Your task to perform on an android device: open device folders in google photos Image 0: 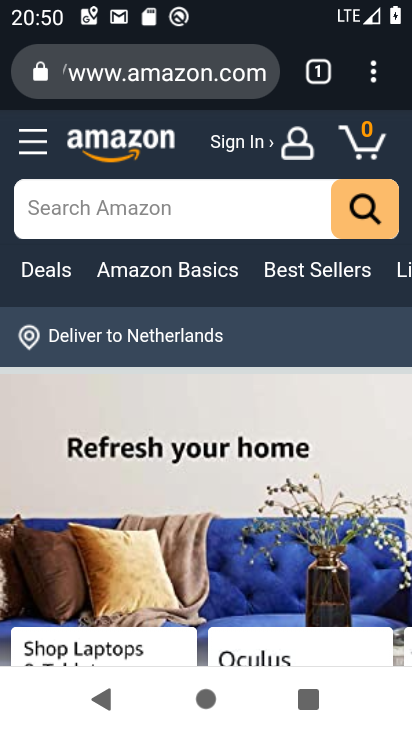
Step 0: press home button
Your task to perform on an android device: open device folders in google photos Image 1: 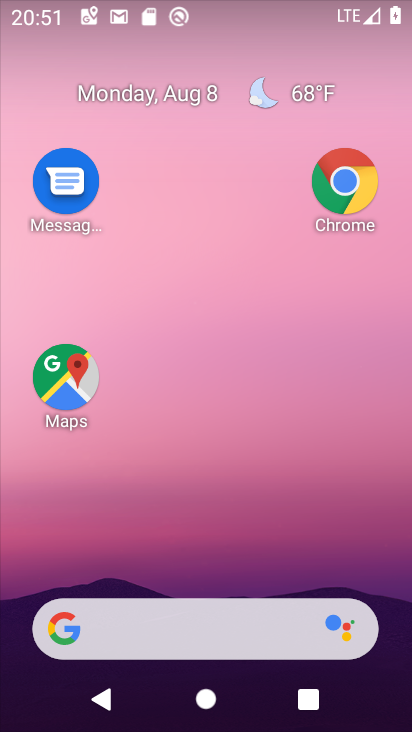
Step 1: drag from (138, 559) to (94, 103)
Your task to perform on an android device: open device folders in google photos Image 2: 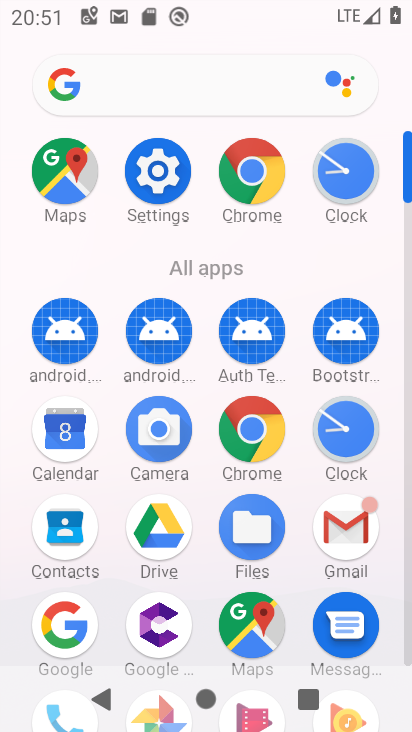
Step 2: drag from (311, 558) to (273, 111)
Your task to perform on an android device: open device folders in google photos Image 3: 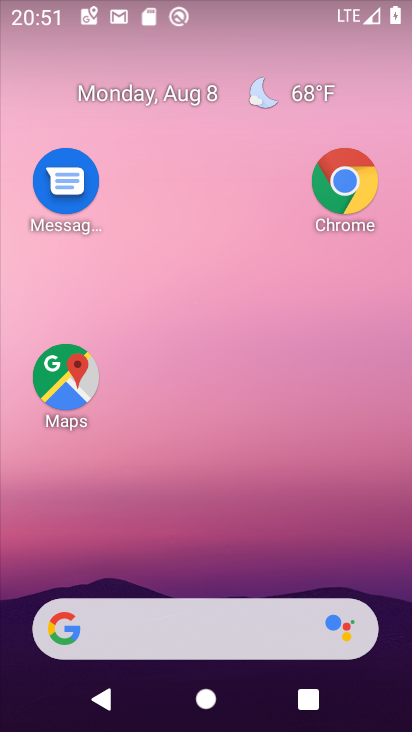
Step 3: drag from (220, 571) to (280, 64)
Your task to perform on an android device: open device folders in google photos Image 4: 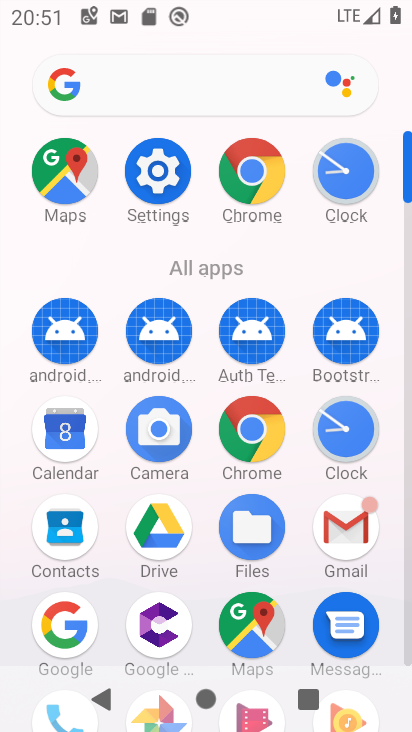
Step 4: drag from (199, 579) to (120, 29)
Your task to perform on an android device: open device folders in google photos Image 5: 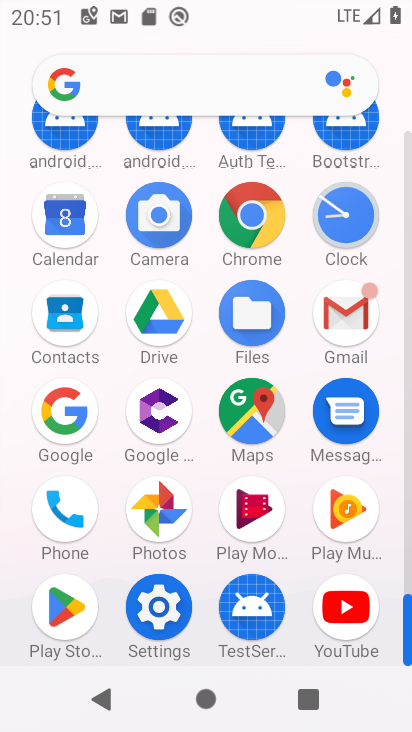
Step 5: click (145, 531)
Your task to perform on an android device: open device folders in google photos Image 6: 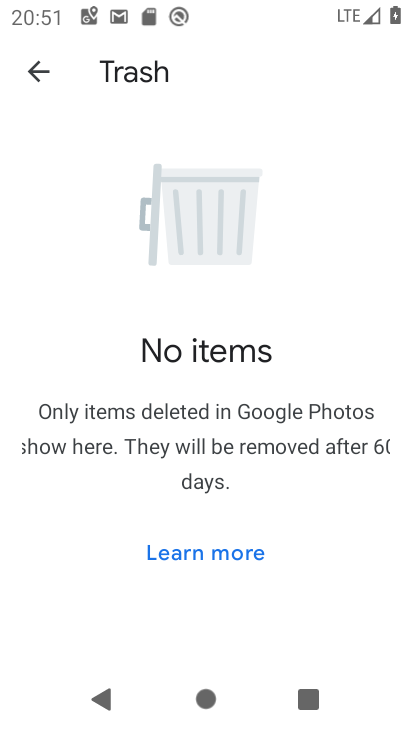
Step 6: click (49, 64)
Your task to perform on an android device: open device folders in google photos Image 7: 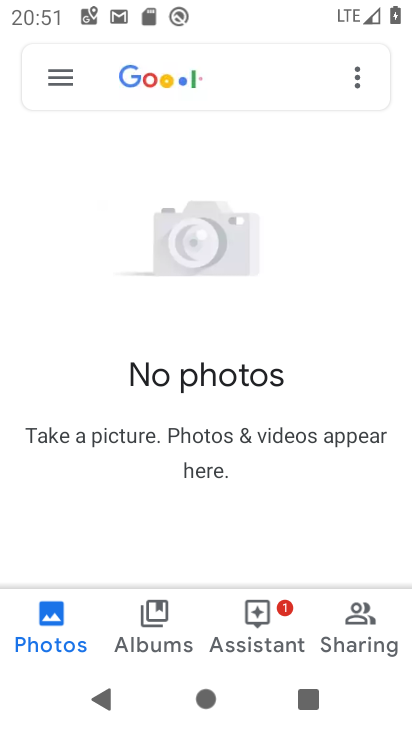
Step 7: click (50, 69)
Your task to perform on an android device: open device folders in google photos Image 8: 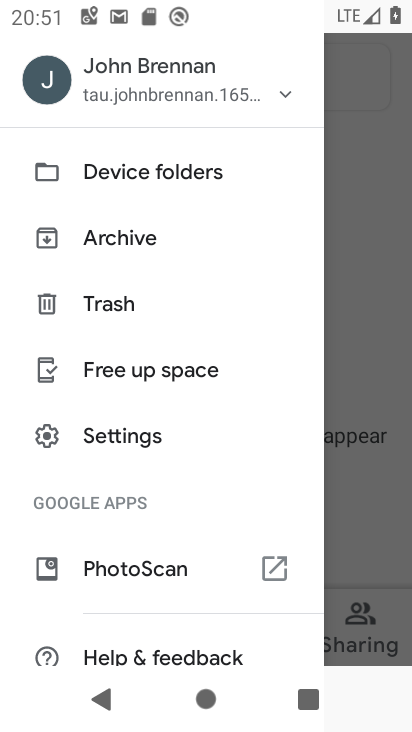
Step 8: click (73, 172)
Your task to perform on an android device: open device folders in google photos Image 9: 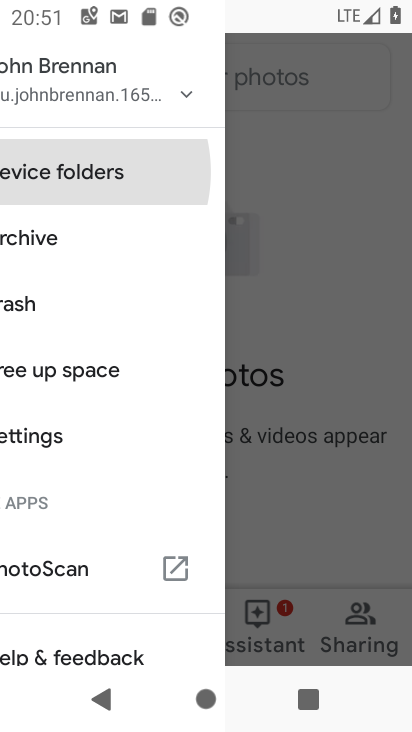
Step 9: click (73, 172)
Your task to perform on an android device: open device folders in google photos Image 10: 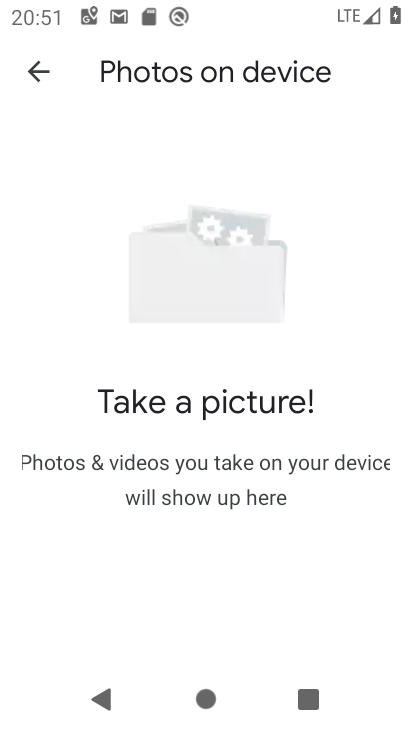
Step 10: click (309, 172)
Your task to perform on an android device: open device folders in google photos Image 11: 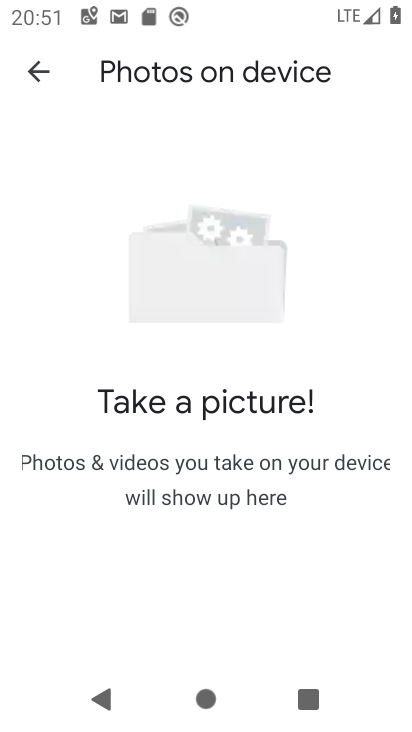
Step 11: task complete